Your task to perform on an android device: make emails show in primary in the gmail app Image 0: 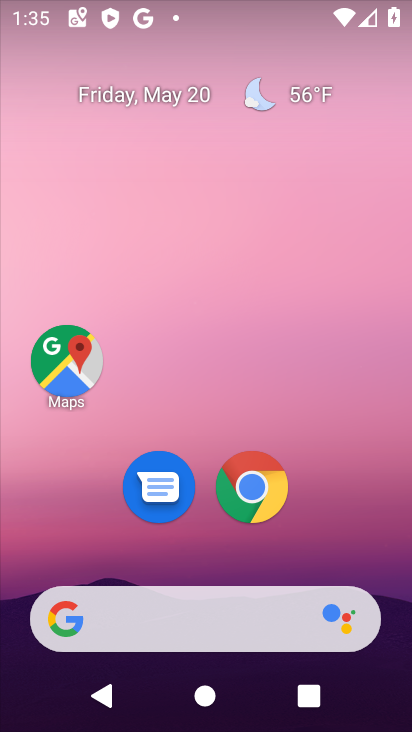
Step 0: drag from (206, 565) to (217, 31)
Your task to perform on an android device: make emails show in primary in the gmail app Image 1: 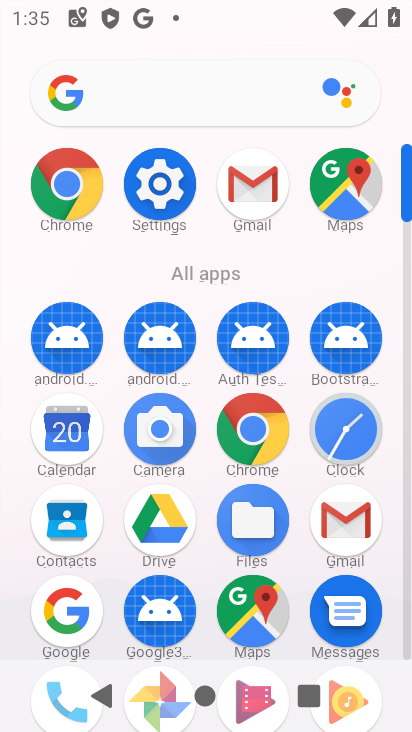
Step 1: click (251, 174)
Your task to perform on an android device: make emails show in primary in the gmail app Image 2: 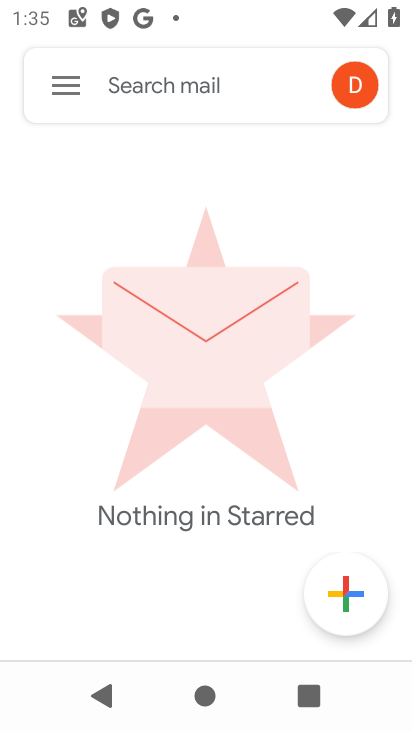
Step 2: click (57, 83)
Your task to perform on an android device: make emails show in primary in the gmail app Image 3: 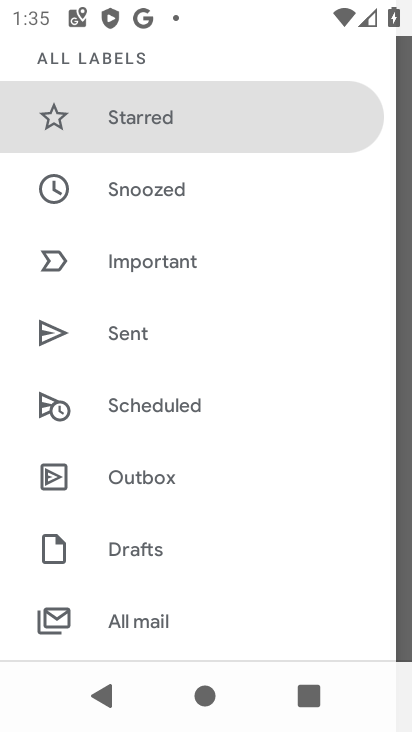
Step 3: drag from (179, 612) to (185, 110)
Your task to perform on an android device: make emails show in primary in the gmail app Image 4: 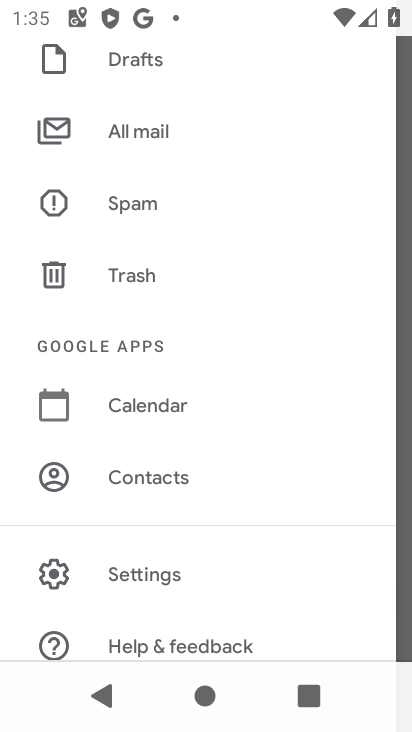
Step 4: click (185, 568)
Your task to perform on an android device: make emails show in primary in the gmail app Image 5: 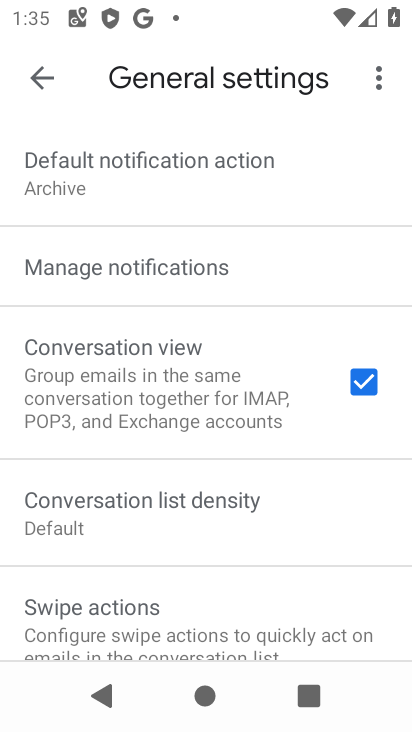
Step 5: click (43, 85)
Your task to perform on an android device: make emails show in primary in the gmail app Image 6: 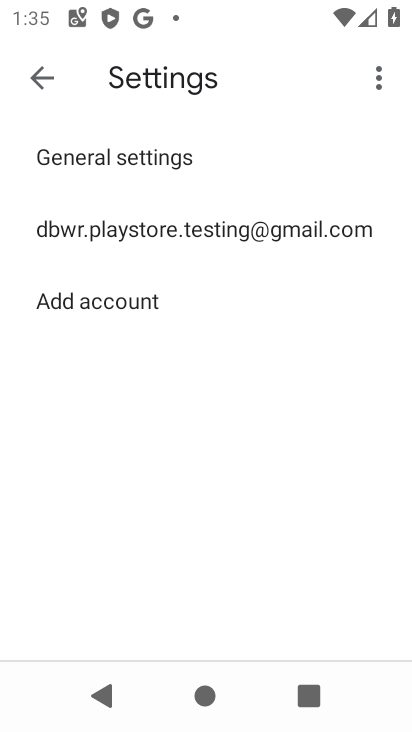
Step 6: click (200, 226)
Your task to perform on an android device: make emails show in primary in the gmail app Image 7: 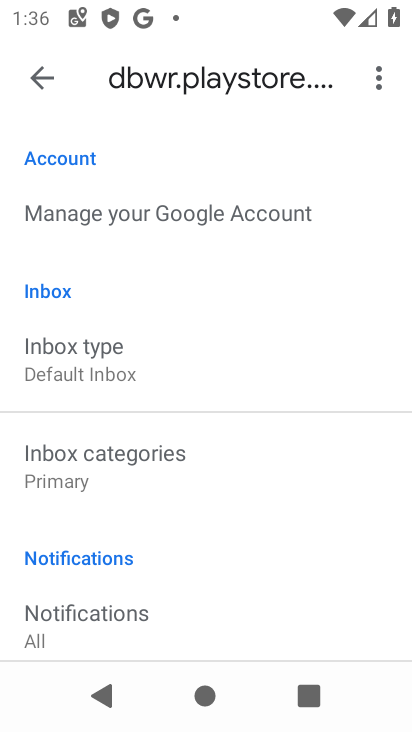
Step 7: click (141, 360)
Your task to perform on an android device: make emails show in primary in the gmail app Image 8: 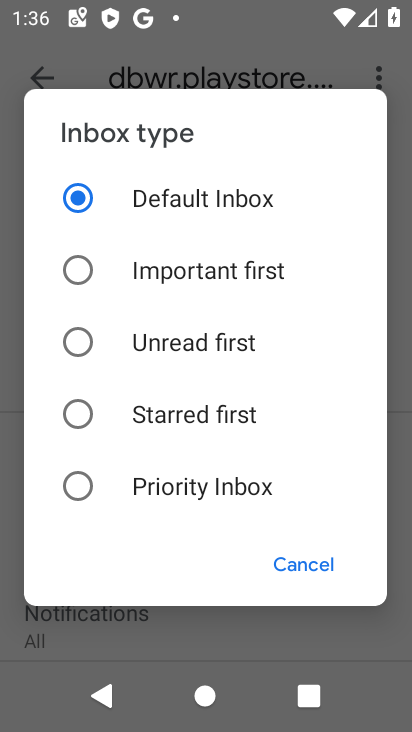
Step 8: click (138, 200)
Your task to perform on an android device: make emails show in primary in the gmail app Image 9: 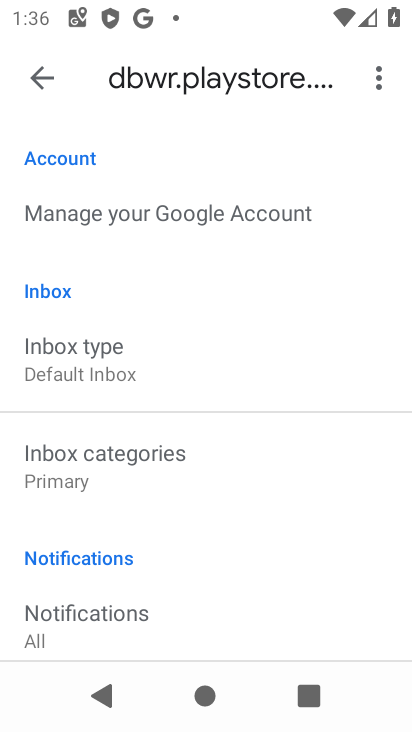
Step 9: task complete